Your task to perform on an android device: Show me popular videos on Youtube Image 0: 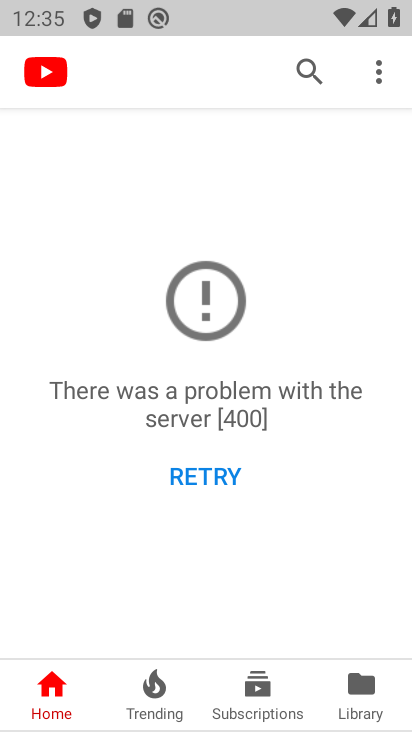
Step 0: click (166, 692)
Your task to perform on an android device: Show me popular videos on Youtube Image 1: 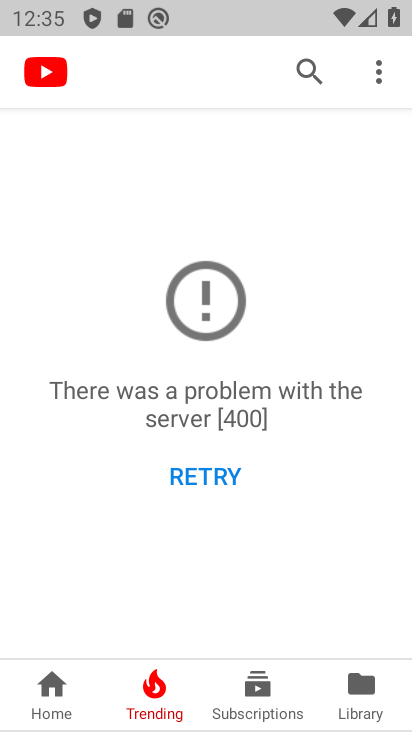
Step 1: click (197, 480)
Your task to perform on an android device: Show me popular videos on Youtube Image 2: 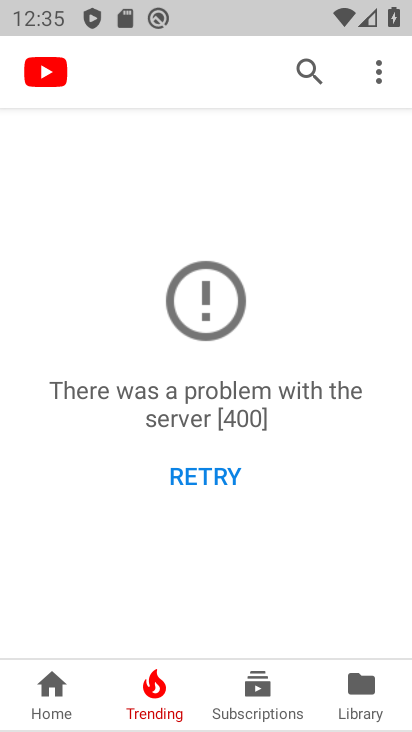
Step 2: task complete